Your task to perform on an android device: Open eBay Image 0: 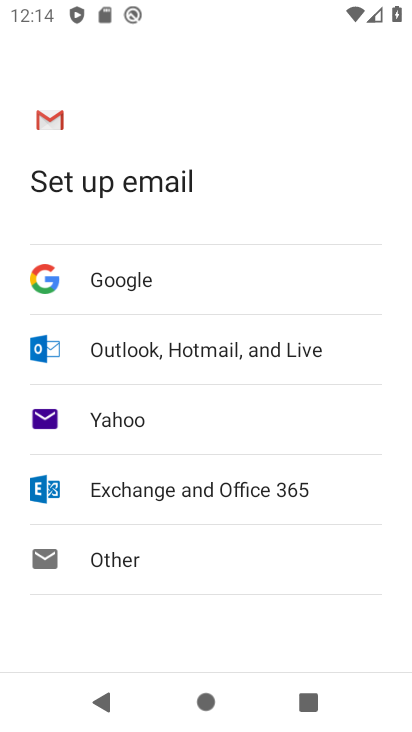
Step 0: press home button
Your task to perform on an android device: Open eBay Image 1: 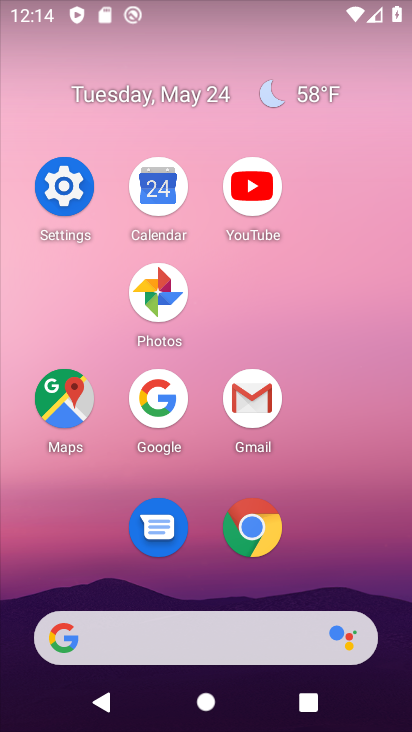
Step 1: click (265, 519)
Your task to perform on an android device: Open eBay Image 2: 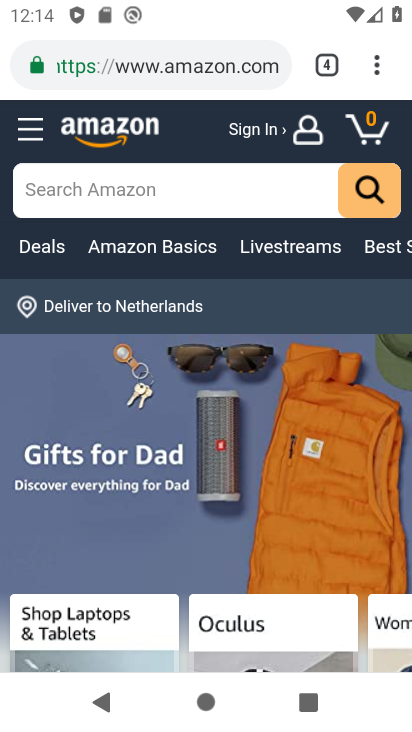
Step 2: click (309, 52)
Your task to perform on an android device: Open eBay Image 3: 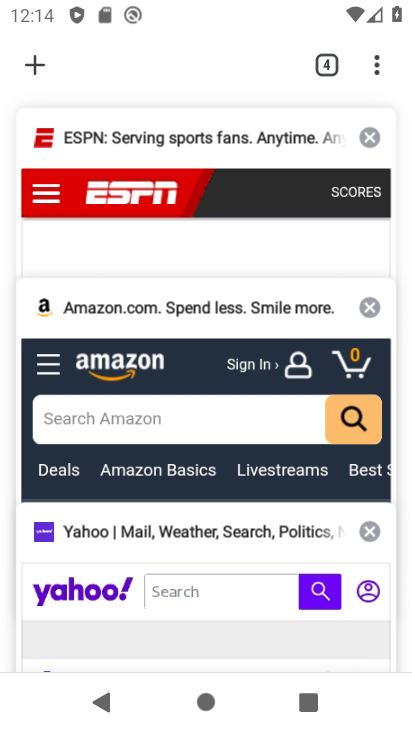
Step 3: click (40, 61)
Your task to perform on an android device: Open eBay Image 4: 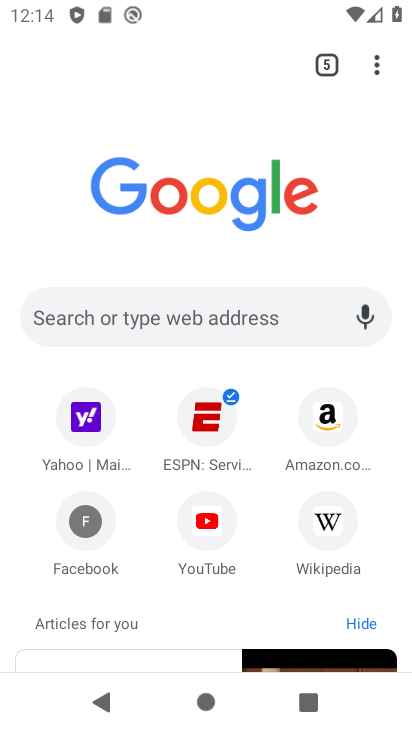
Step 4: click (193, 310)
Your task to perform on an android device: Open eBay Image 5: 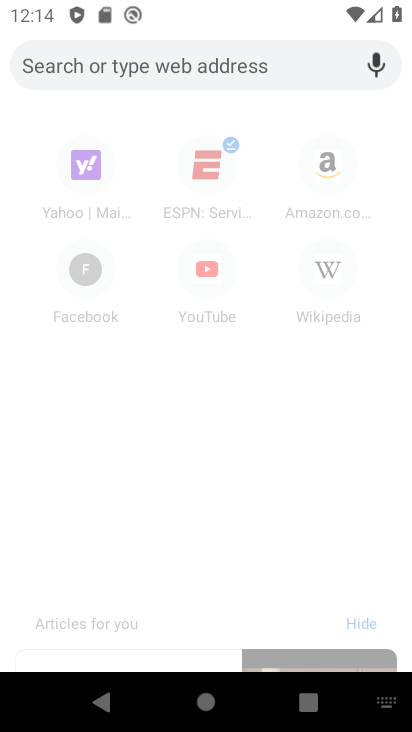
Step 5: type "ebay"
Your task to perform on an android device: Open eBay Image 6: 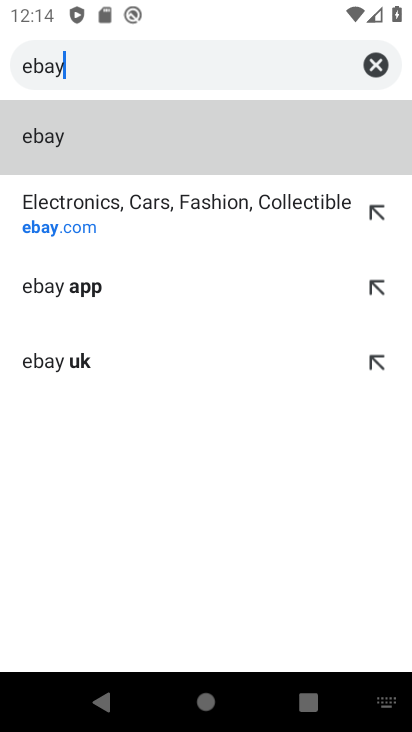
Step 6: click (97, 227)
Your task to perform on an android device: Open eBay Image 7: 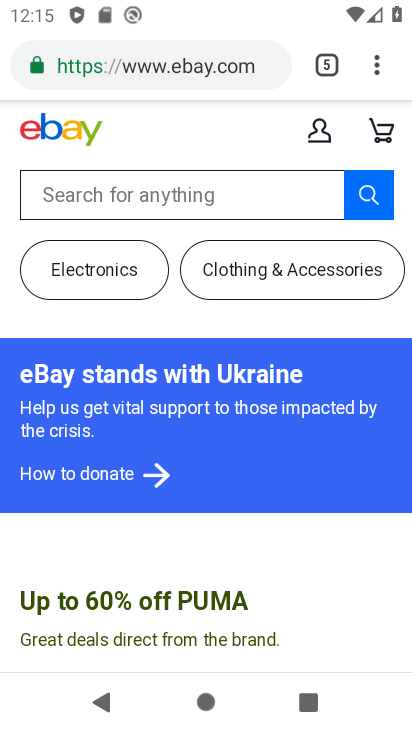
Step 7: task complete